Your task to perform on an android device: toggle pop-ups in chrome Image 0: 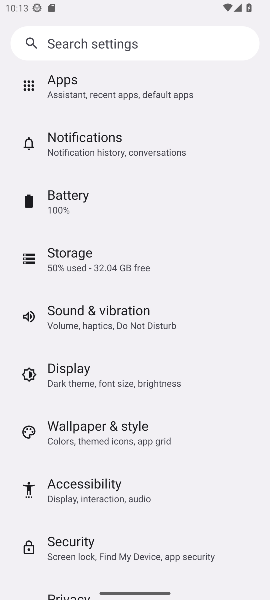
Step 0: press home button
Your task to perform on an android device: toggle pop-ups in chrome Image 1: 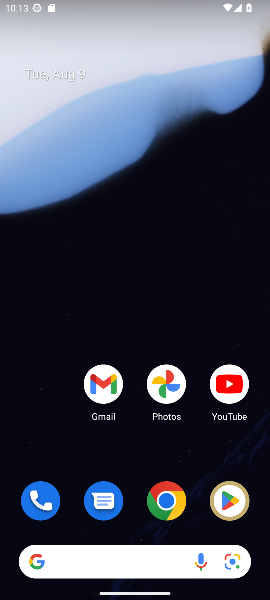
Step 1: click (166, 504)
Your task to perform on an android device: toggle pop-ups in chrome Image 2: 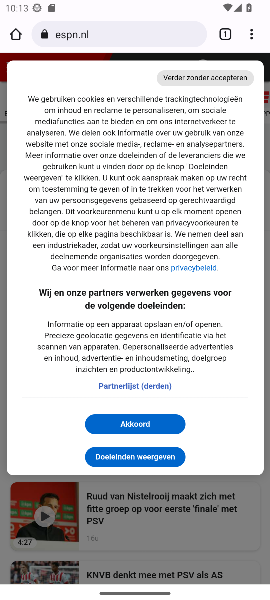
Step 2: click (250, 34)
Your task to perform on an android device: toggle pop-ups in chrome Image 3: 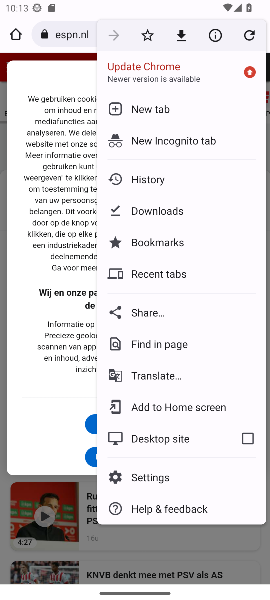
Step 3: click (140, 475)
Your task to perform on an android device: toggle pop-ups in chrome Image 4: 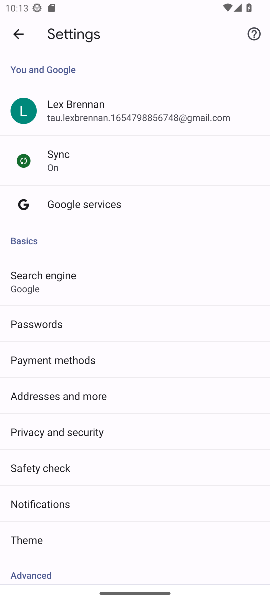
Step 4: click (75, 541)
Your task to perform on an android device: toggle pop-ups in chrome Image 5: 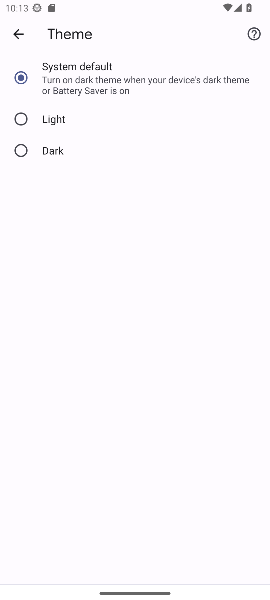
Step 5: click (16, 36)
Your task to perform on an android device: toggle pop-ups in chrome Image 6: 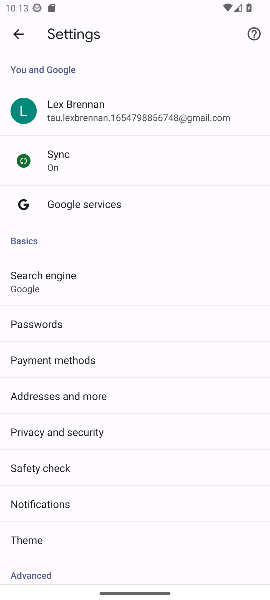
Step 6: drag from (71, 519) to (90, 234)
Your task to perform on an android device: toggle pop-ups in chrome Image 7: 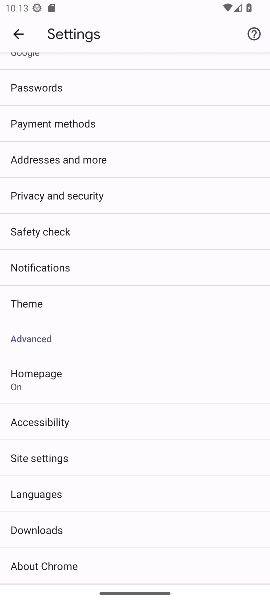
Step 7: click (52, 462)
Your task to perform on an android device: toggle pop-ups in chrome Image 8: 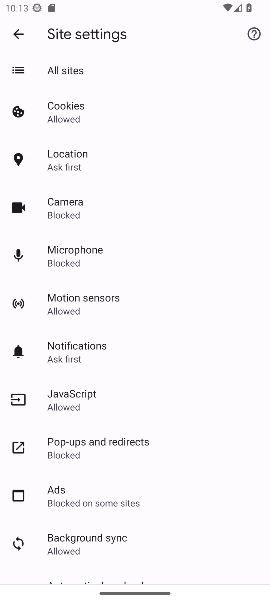
Step 8: click (92, 448)
Your task to perform on an android device: toggle pop-ups in chrome Image 9: 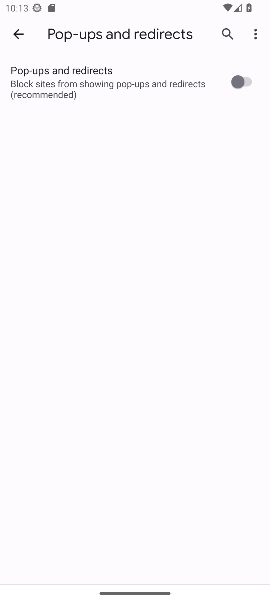
Step 9: click (248, 79)
Your task to perform on an android device: toggle pop-ups in chrome Image 10: 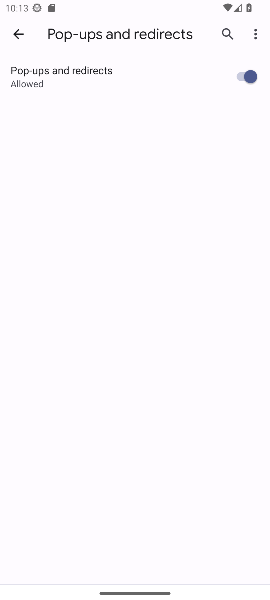
Step 10: task complete